Your task to perform on an android device: open a bookmark in the chrome app Image 0: 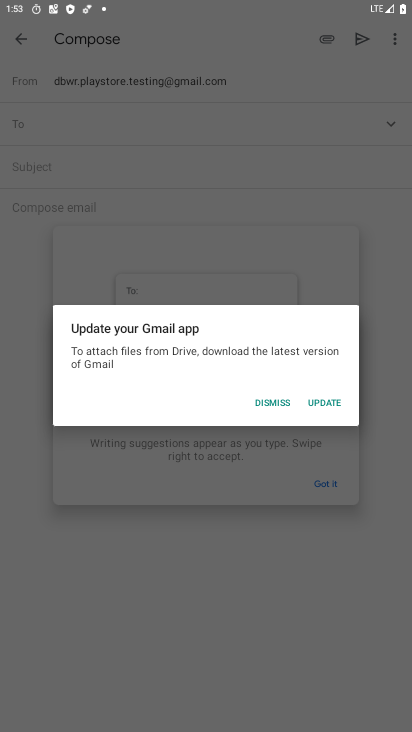
Step 0: press home button
Your task to perform on an android device: open a bookmark in the chrome app Image 1: 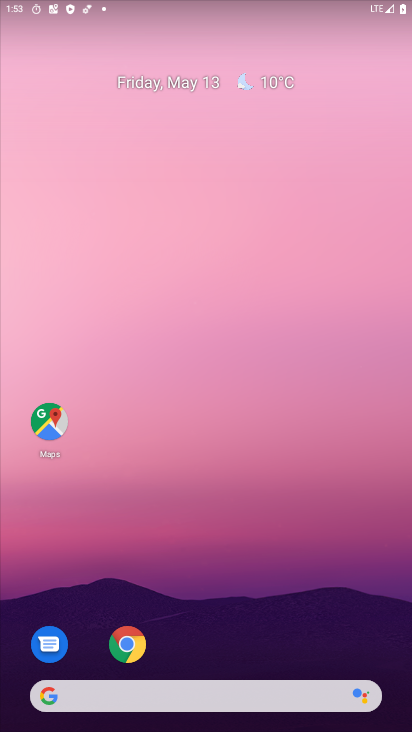
Step 1: drag from (265, 707) to (296, 49)
Your task to perform on an android device: open a bookmark in the chrome app Image 2: 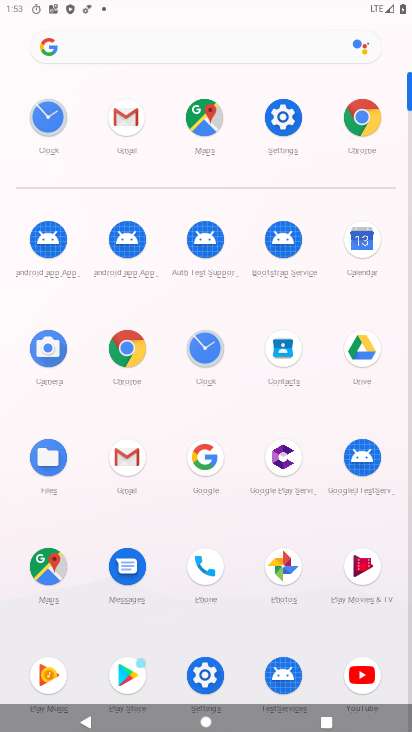
Step 2: click (129, 352)
Your task to perform on an android device: open a bookmark in the chrome app Image 3: 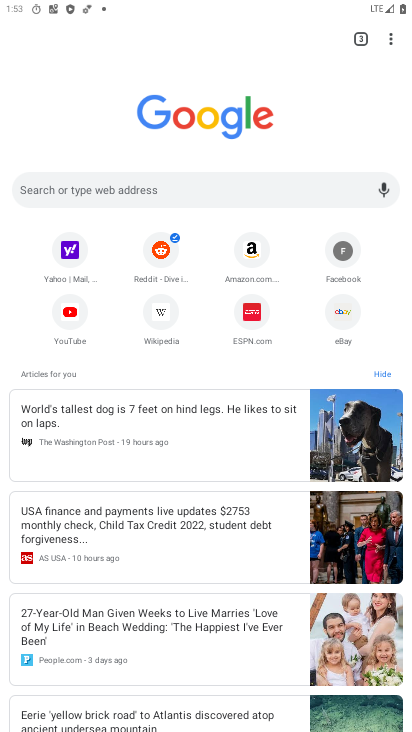
Step 3: click (388, 38)
Your task to perform on an android device: open a bookmark in the chrome app Image 4: 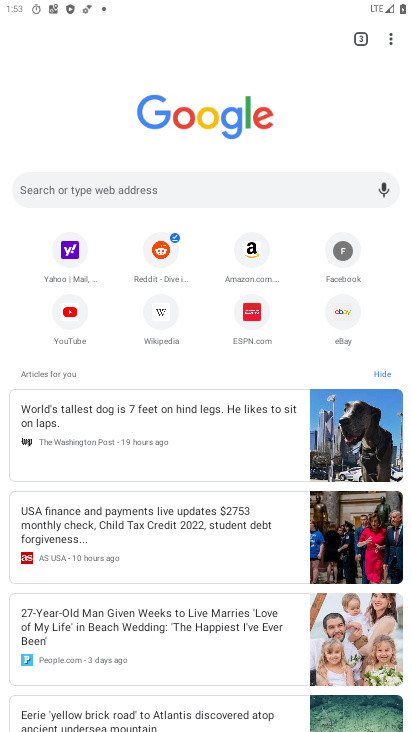
Step 4: task complete